Your task to perform on an android device: Show me productivity apps on the Play Store Image 0: 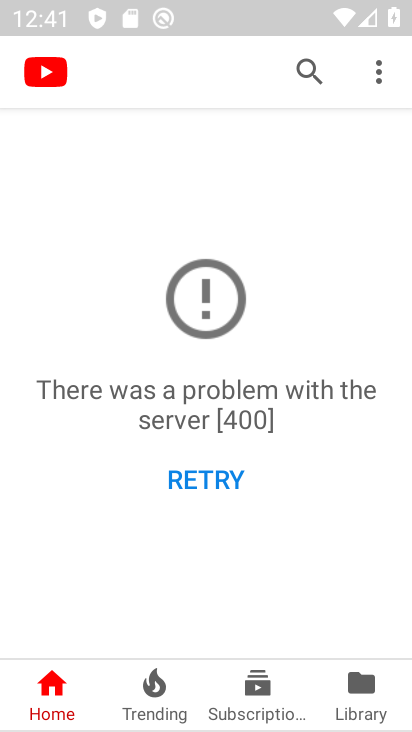
Step 0: press home button
Your task to perform on an android device: Show me productivity apps on the Play Store Image 1: 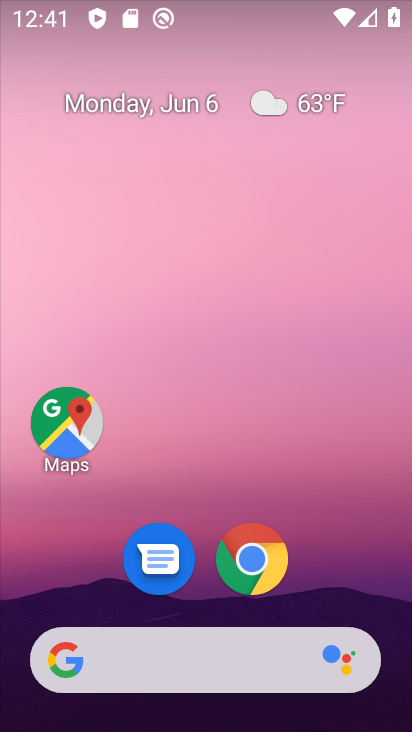
Step 1: drag from (94, 506) to (95, 620)
Your task to perform on an android device: Show me productivity apps on the Play Store Image 2: 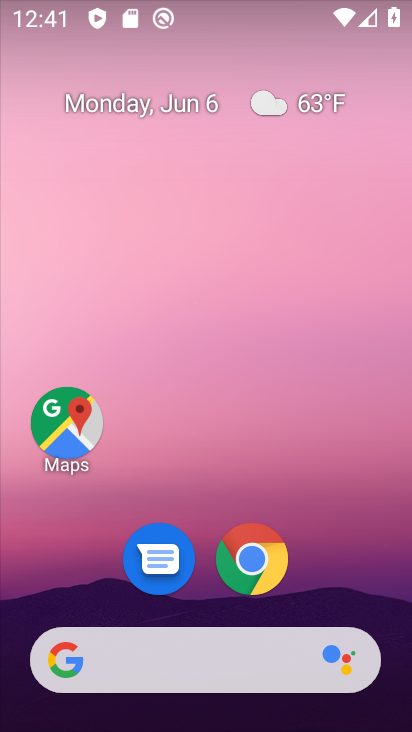
Step 2: drag from (111, 621) to (201, 16)
Your task to perform on an android device: Show me productivity apps on the Play Store Image 3: 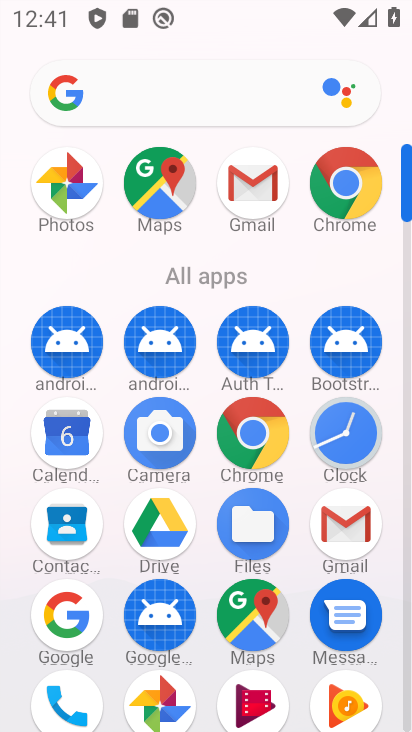
Step 3: drag from (143, 692) to (204, 431)
Your task to perform on an android device: Show me productivity apps on the Play Store Image 4: 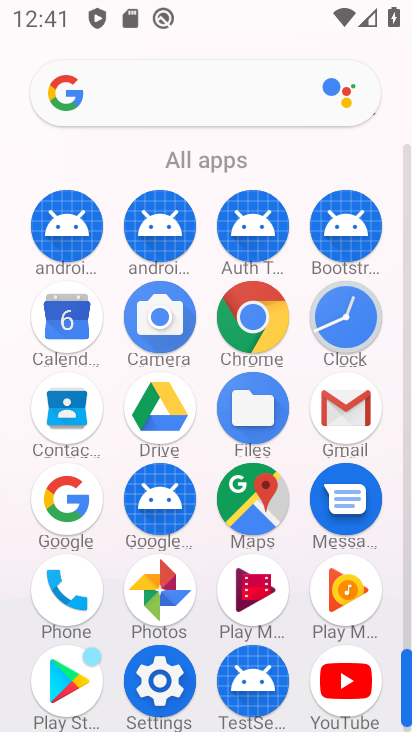
Step 4: click (96, 659)
Your task to perform on an android device: Show me productivity apps on the Play Store Image 5: 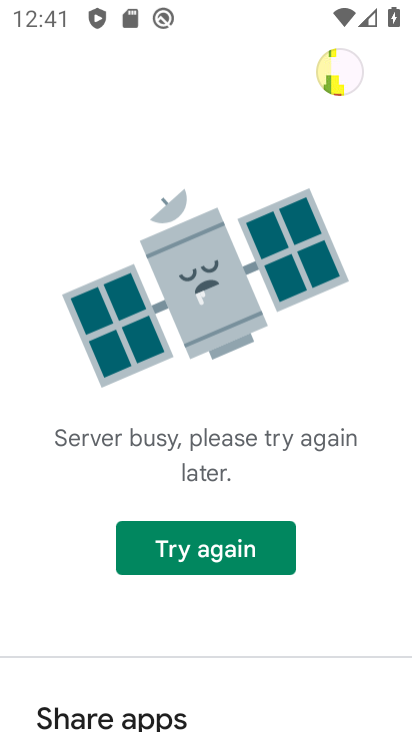
Step 5: task complete